Your task to perform on an android device: Open Google Chrome and click the shortcut for Amazon.com Image 0: 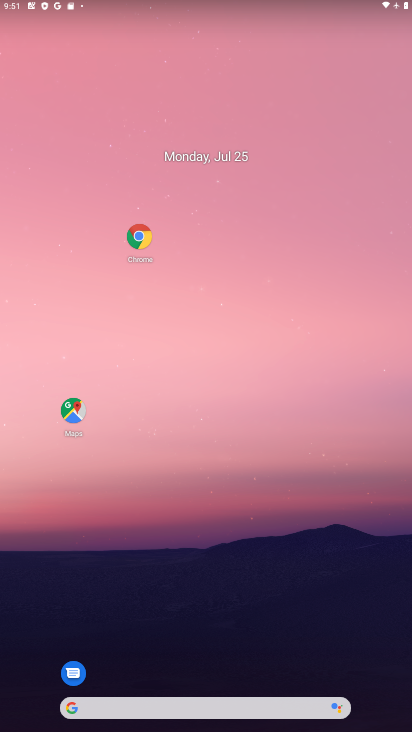
Step 0: click (162, 260)
Your task to perform on an android device: Open Google Chrome and click the shortcut for Amazon.com Image 1: 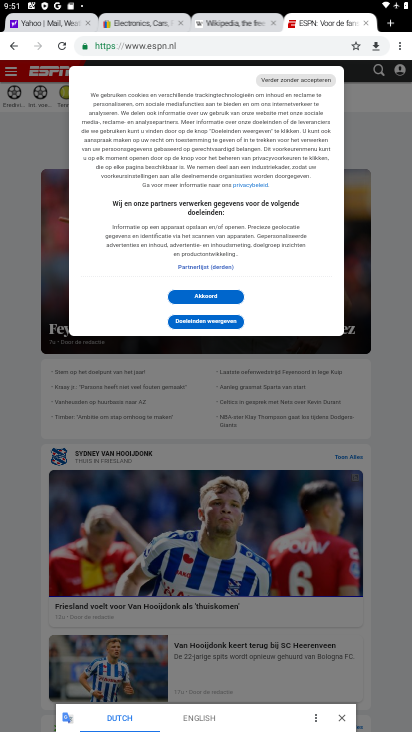
Step 1: click (203, 295)
Your task to perform on an android device: Open Google Chrome and click the shortcut for Amazon.com Image 2: 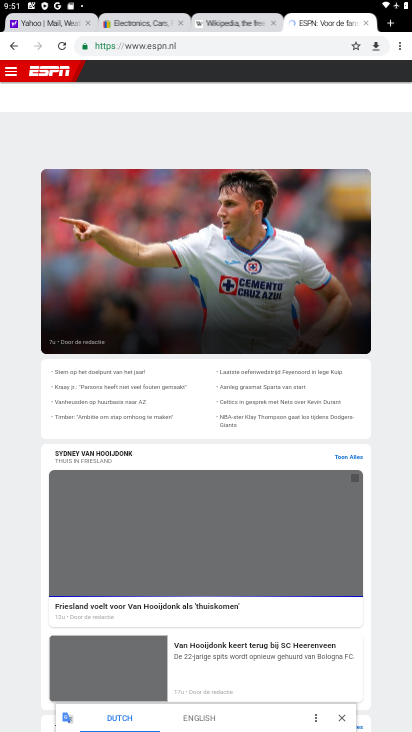
Step 2: task complete